Your task to perform on an android device: change keyboard looks Image 0: 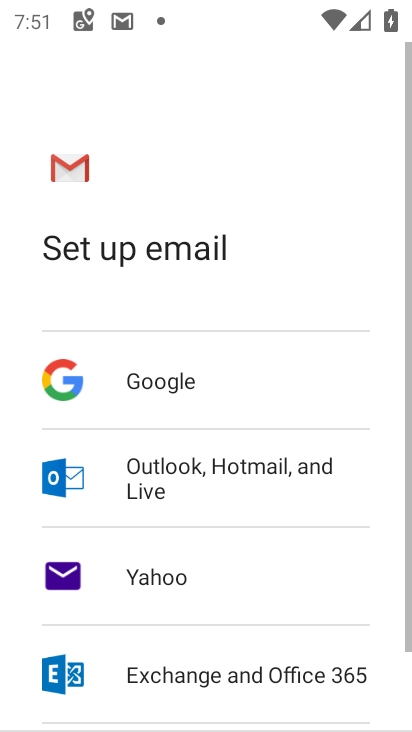
Step 0: press home button
Your task to perform on an android device: change keyboard looks Image 1: 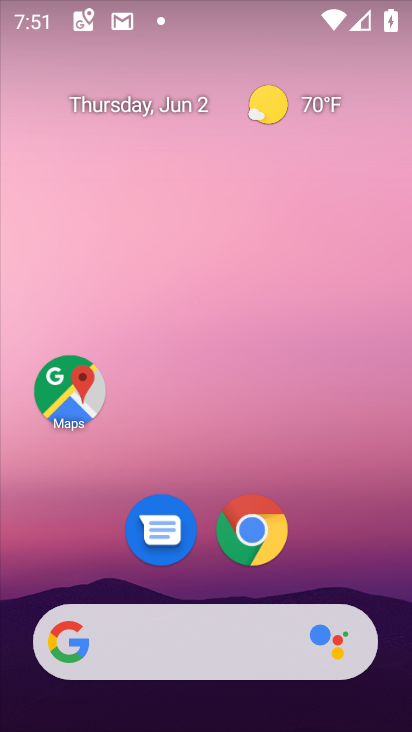
Step 1: drag from (201, 561) to (201, 294)
Your task to perform on an android device: change keyboard looks Image 2: 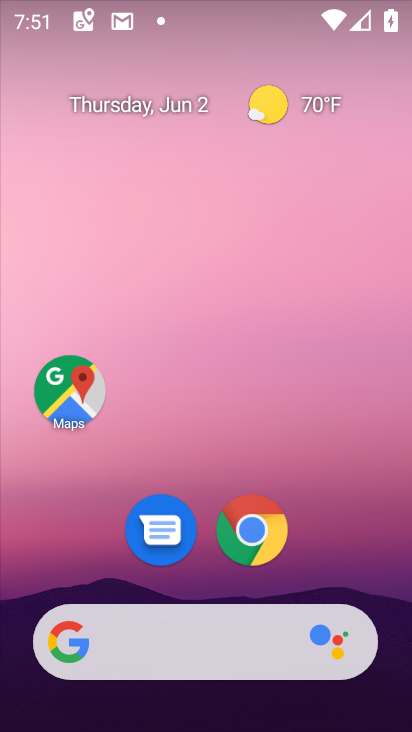
Step 2: drag from (200, 411) to (200, 156)
Your task to perform on an android device: change keyboard looks Image 3: 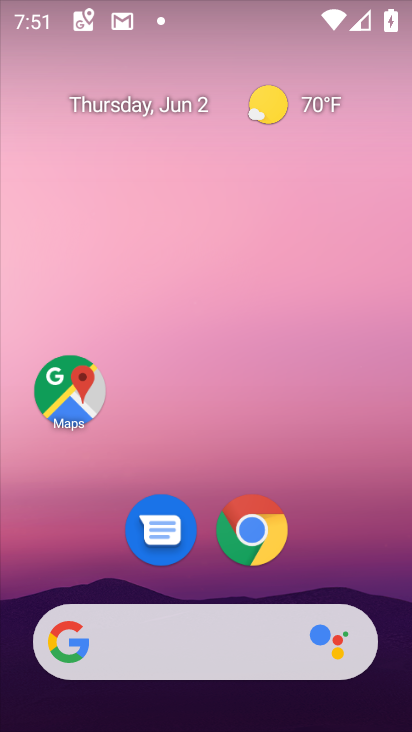
Step 3: drag from (208, 597) to (238, 147)
Your task to perform on an android device: change keyboard looks Image 4: 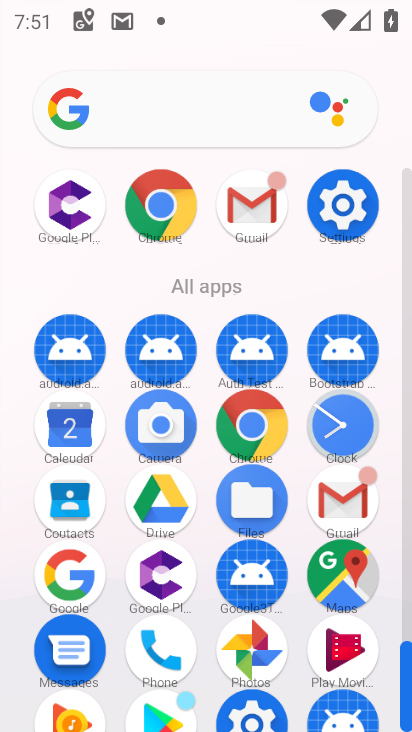
Step 4: click (337, 214)
Your task to perform on an android device: change keyboard looks Image 5: 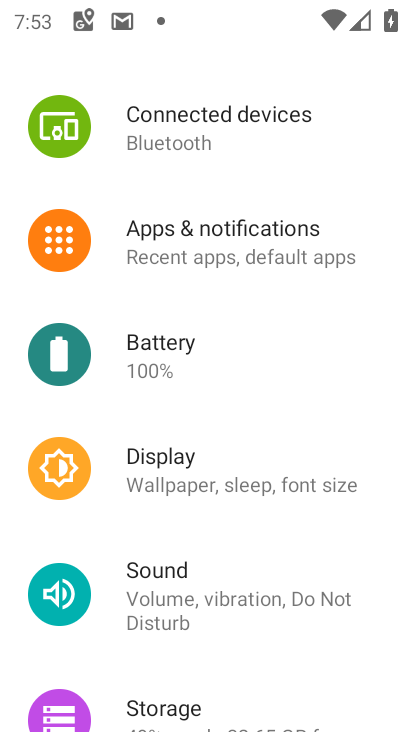
Step 5: drag from (203, 674) to (216, 234)
Your task to perform on an android device: change keyboard looks Image 6: 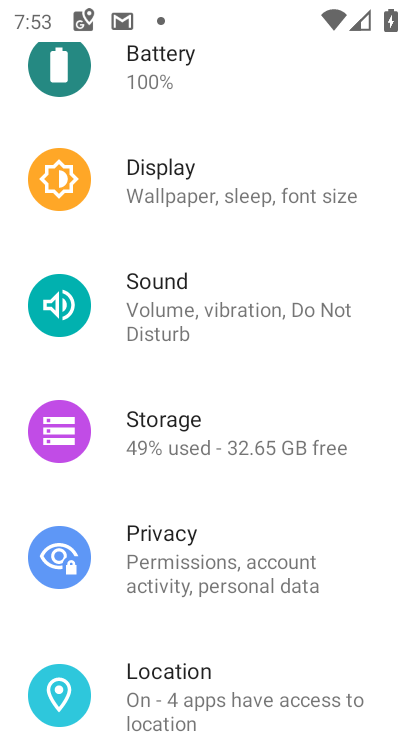
Step 6: drag from (238, 689) to (233, 349)
Your task to perform on an android device: change keyboard looks Image 7: 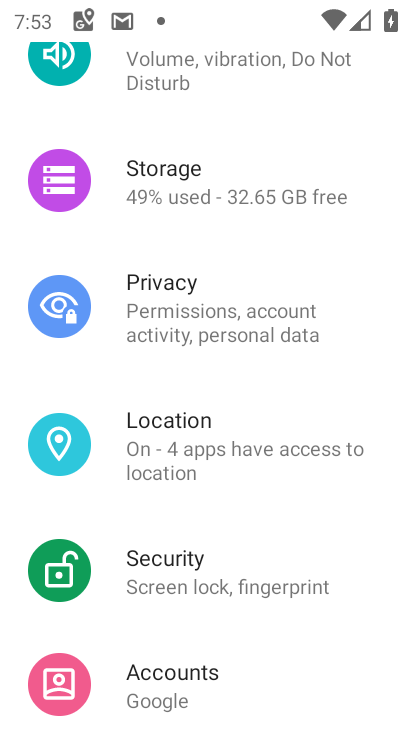
Step 7: drag from (196, 711) to (223, 330)
Your task to perform on an android device: change keyboard looks Image 8: 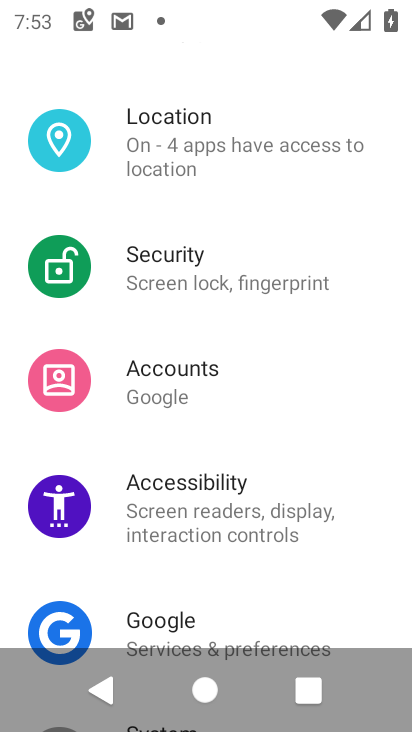
Step 8: drag from (253, 609) to (265, 363)
Your task to perform on an android device: change keyboard looks Image 9: 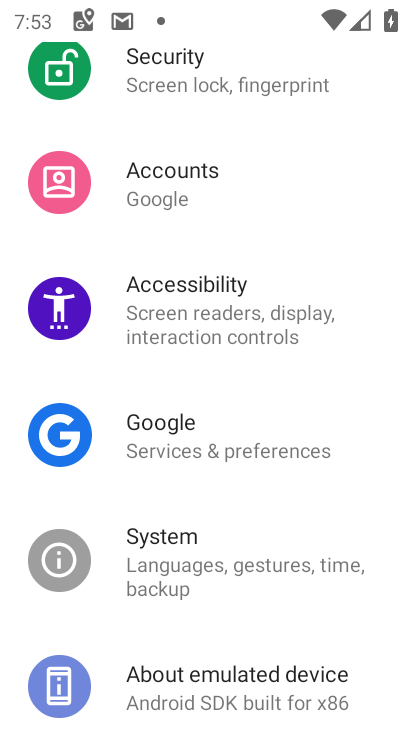
Step 9: click (220, 576)
Your task to perform on an android device: change keyboard looks Image 10: 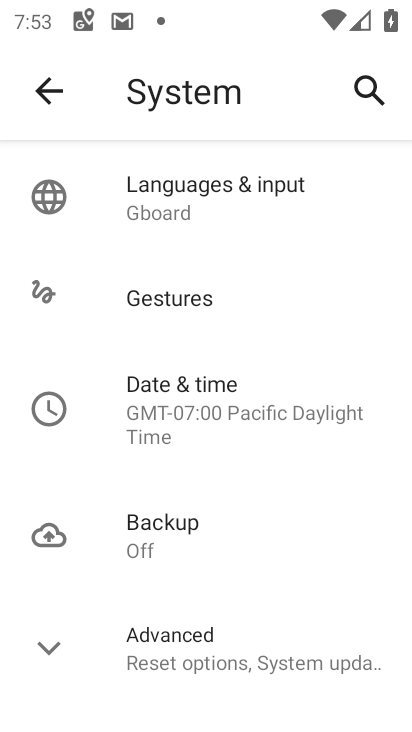
Step 10: click (162, 206)
Your task to perform on an android device: change keyboard looks Image 11: 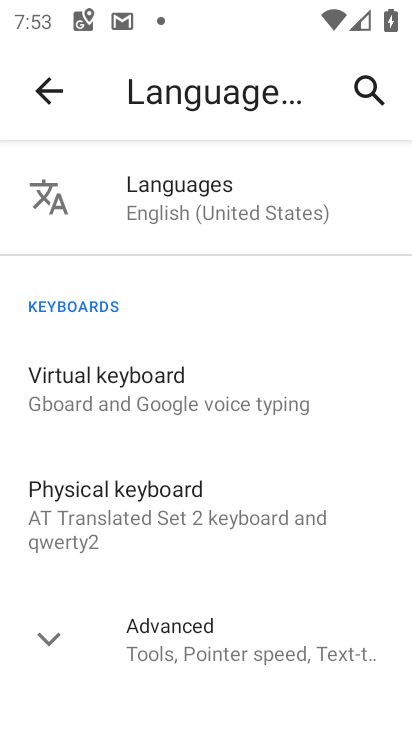
Step 11: click (158, 381)
Your task to perform on an android device: change keyboard looks Image 12: 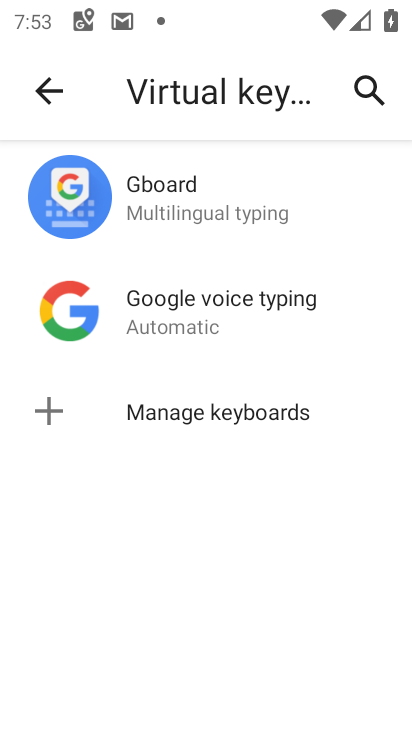
Step 12: click (162, 213)
Your task to perform on an android device: change keyboard looks Image 13: 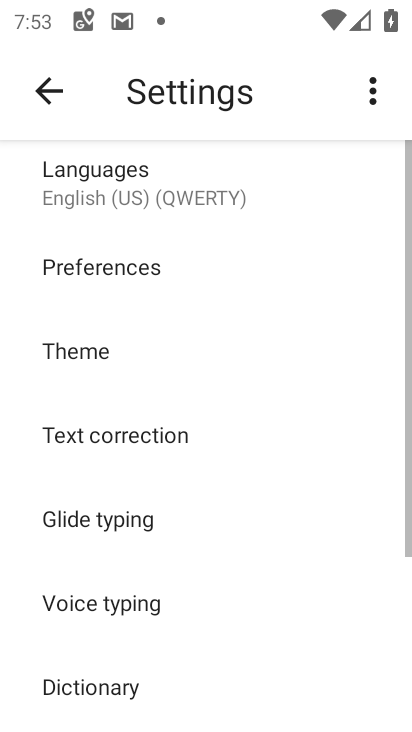
Step 13: click (82, 349)
Your task to perform on an android device: change keyboard looks Image 14: 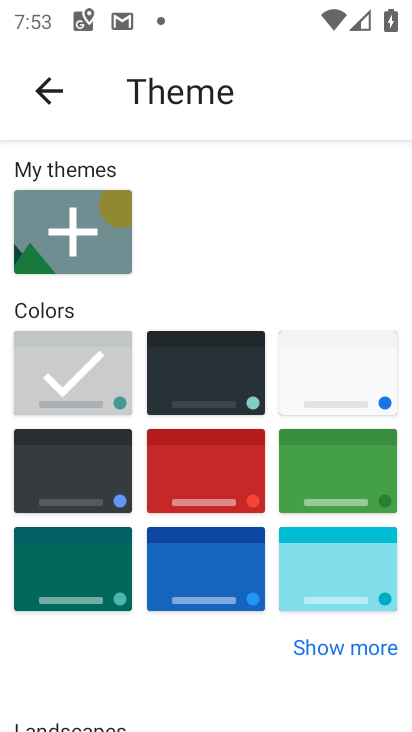
Step 14: click (190, 387)
Your task to perform on an android device: change keyboard looks Image 15: 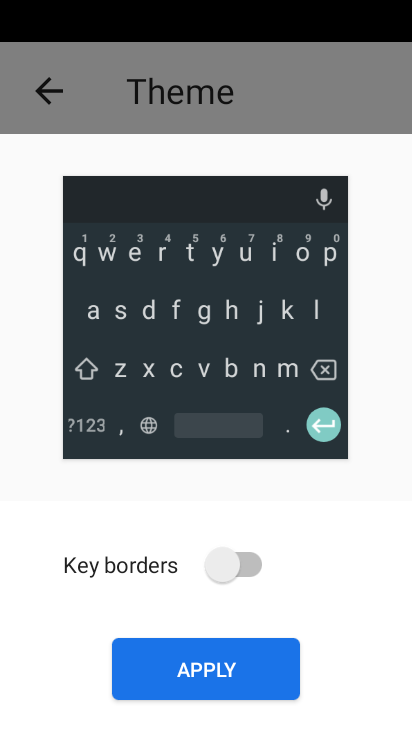
Step 15: click (248, 658)
Your task to perform on an android device: change keyboard looks Image 16: 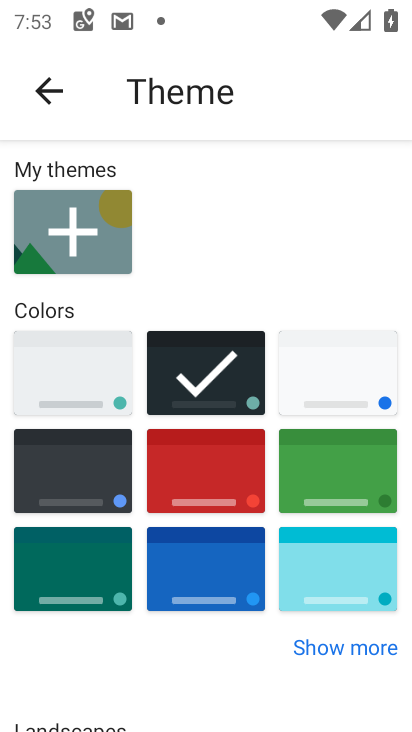
Step 16: task complete